Your task to perform on an android device: Open Chrome and go to the settings page Image 0: 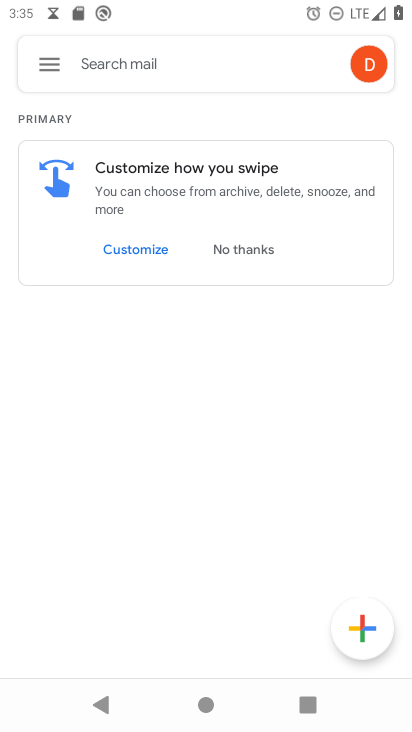
Step 0: press home button
Your task to perform on an android device: Open Chrome and go to the settings page Image 1: 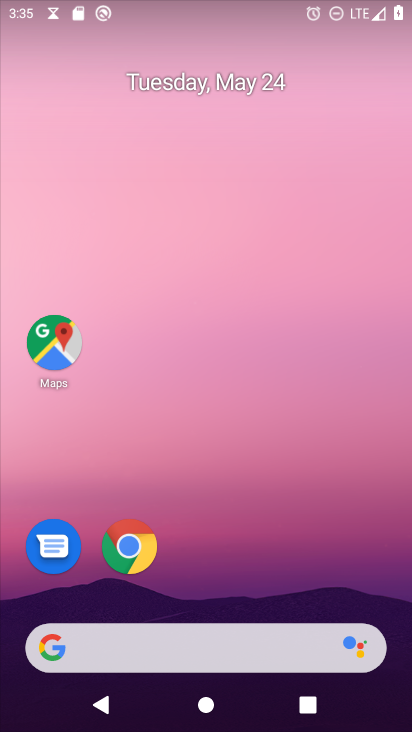
Step 1: drag from (328, 613) to (406, 5)
Your task to perform on an android device: Open Chrome and go to the settings page Image 2: 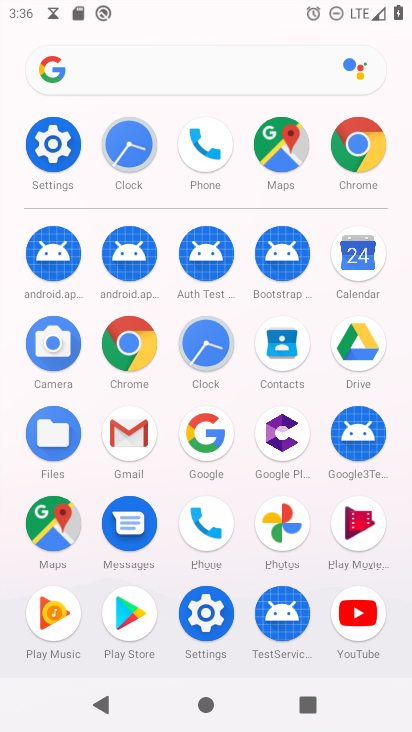
Step 2: click (131, 353)
Your task to perform on an android device: Open Chrome and go to the settings page Image 3: 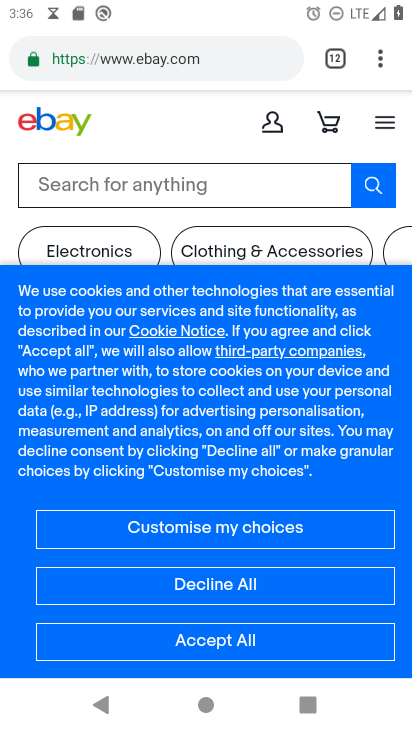
Step 3: task complete